Your task to perform on an android device: Search for vegetarian restaurants on Maps Image 0: 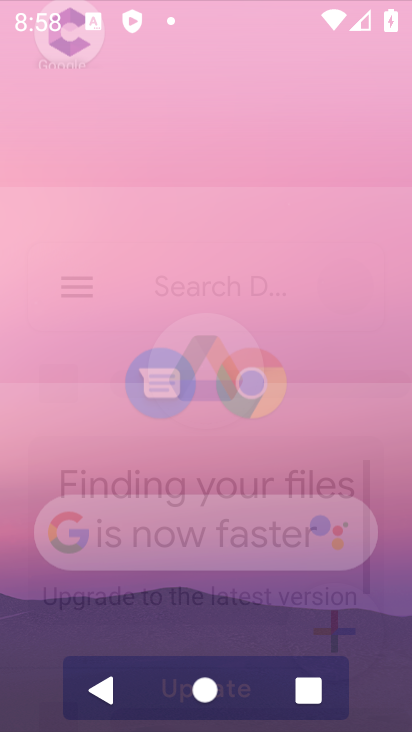
Step 0: drag from (299, 6) to (94, 15)
Your task to perform on an android device: Search for vegetarian restaurants on Maps Image 1: 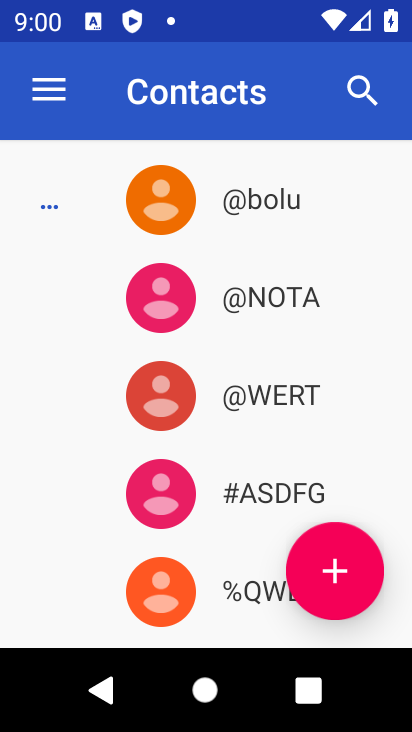
Step 1: press home button
Your task to perform on an android device: Search for vegetarian restaurants on Maps Image 2: 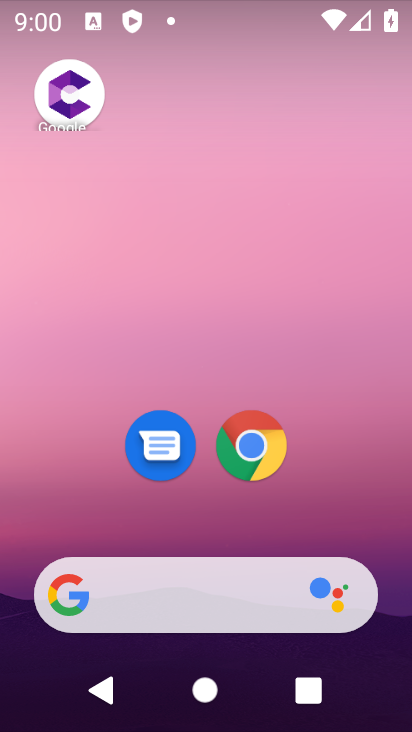
Step 2: drag from (344, 531) to (255, 36)
Your task to perform on an android device: Search for vegetarian restaurants on Maps Image 3: 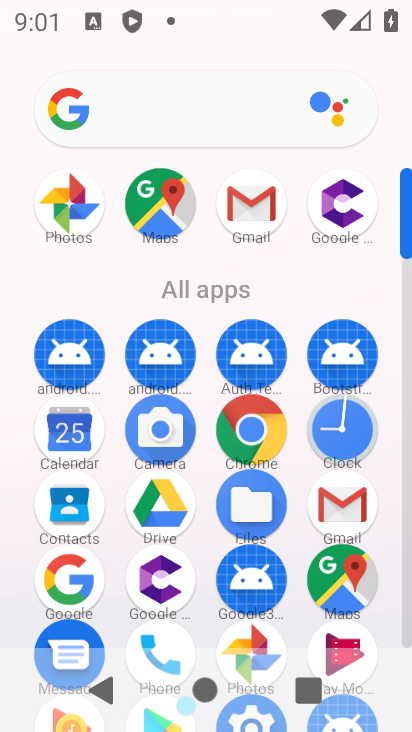
Step 3: click (164, 223)
Your task to perform on an android device: Search for vegetarian restaurants on Maps Image 4: 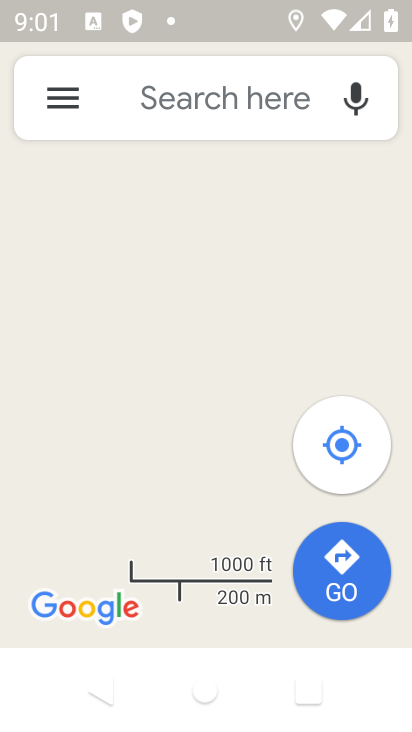
Step 4: click (212, 76)
Your task to perform on an android device: Search for vegetarian restaurants on Maps Image 5: 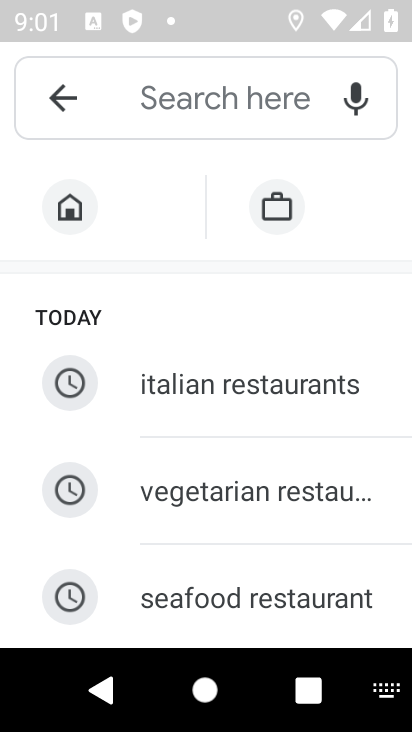
Step 5: type "vegetarian"
Your task to perform on an android device: Search for vegetarian restaurants on Maps Image 6: 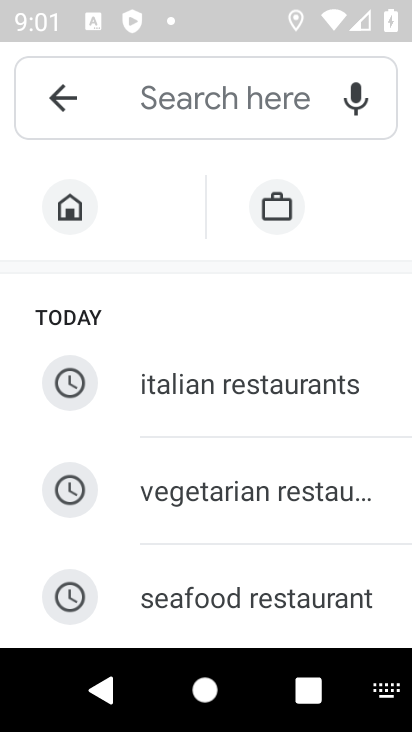
Step 6: click (278, 496)
Your task to perform on an android device: Search for vegetarian restaurants on Maps Image 7: 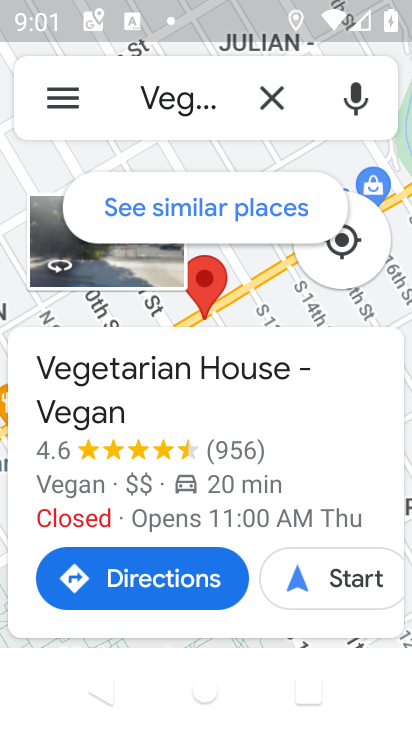
Step 7: task complete